Your task to perform on an android device: turn off priority inbox in the gmail app Image 0: 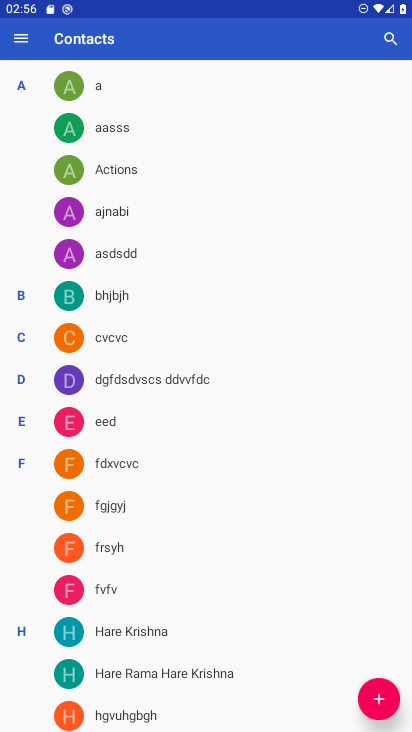
Step 0: press home button
Your task to perform on an android device: turn off priority inbox in the gmail app Image 1: 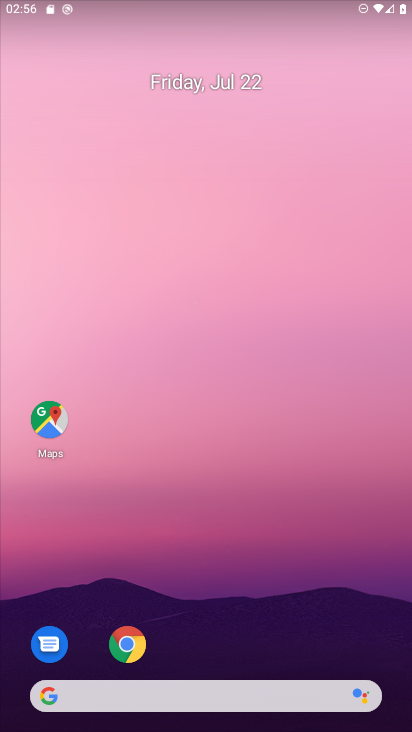
Step 1: drag from (192, 718) to (157, 393)
Your task to perform on an android device: turn off priority inbox in the gmail app Image 2: 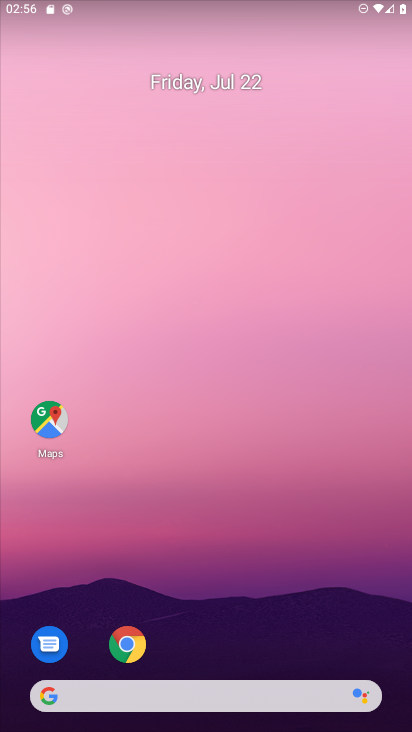
Step 2: drag from (137, 720) to (225, 84)
Your task to perform on an android device: turn off priority inbox in the gmail app Image 3: 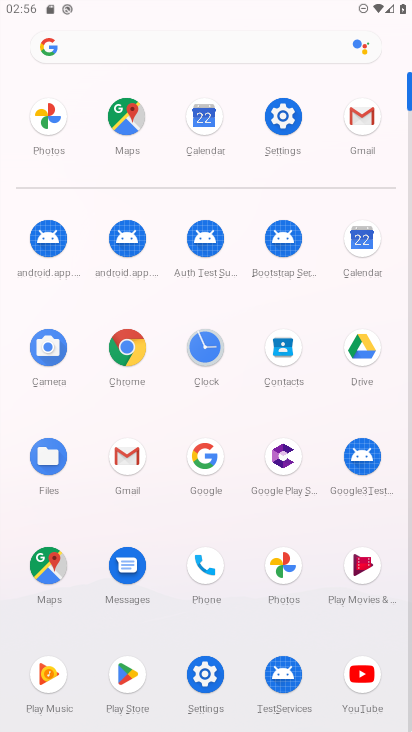
Step 3: click (362, 111)
Your task to perform on an android device: turn off priority inbox in the gmail app Image 4: 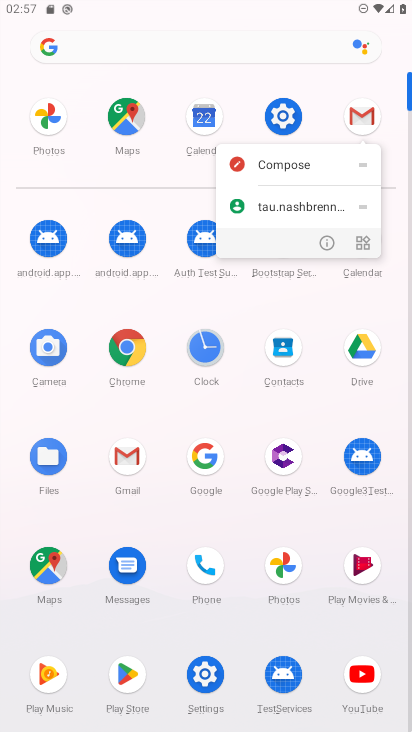
Step 4: click (363, 110)
Your task to perform on an android device: turn off priority inbox in the gmail app Image 5: 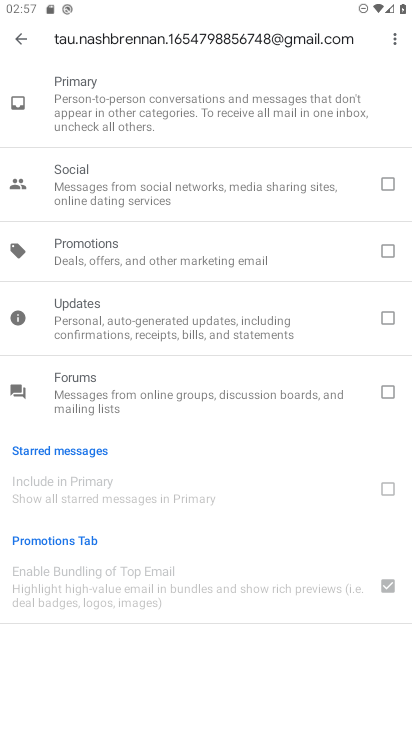
Step 5: click (24, 39)
Your task to perform on an android device: turn off priority inbox in the gmail app Image 6: 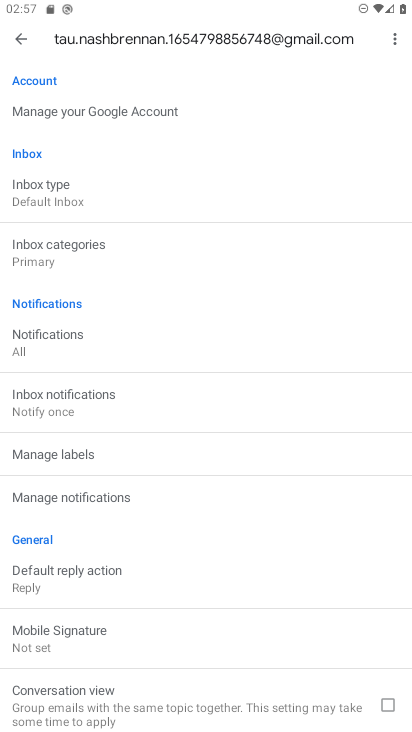
Step 6: click (62, 193)
Your task to perform on an android device: turn off priority inbox in the gmail app Image 7: 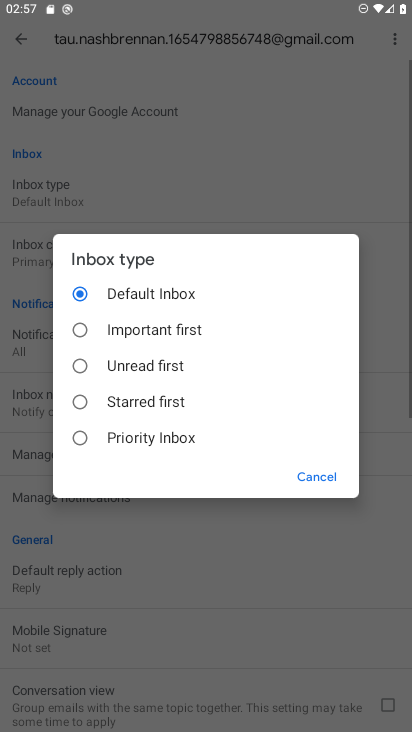
Step 7: task complete